Your task to perform on an android device: change your default location settings in chrome Image 0: 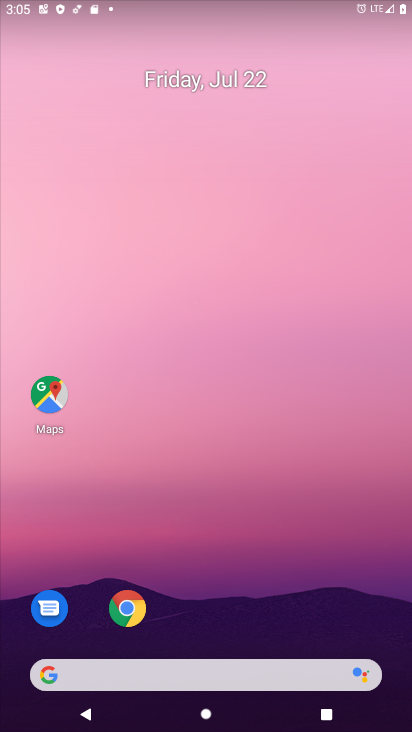
Step 0: click (142, 608)
Your task to perform on an android device: change your default location settings in chrome Image 1: 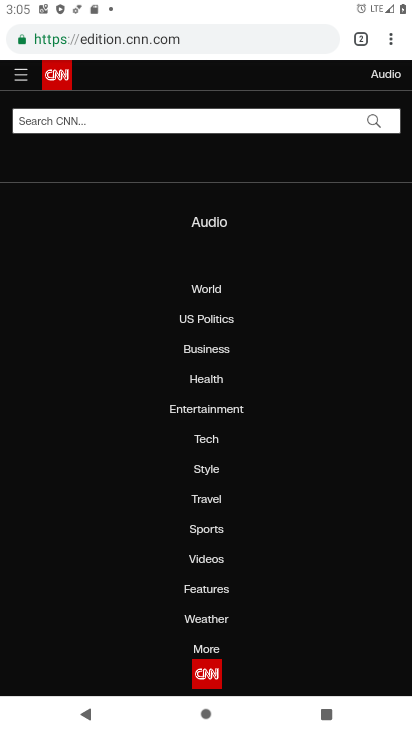
Step 1: click (398, 44)
Your task to perform on an android device: change your default location settings in chrome Image 2: 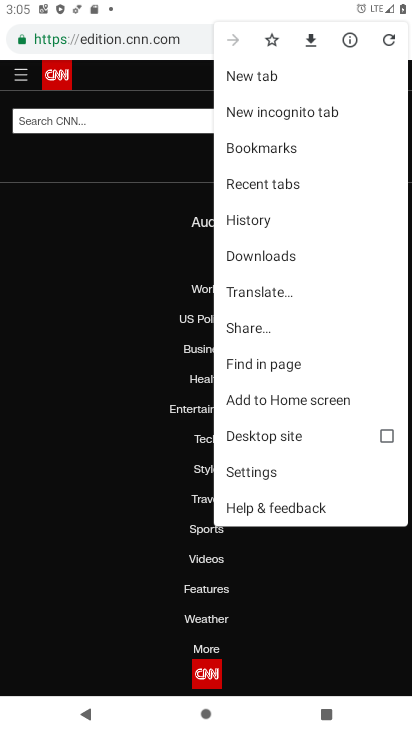
Step 2: click (275, 477)
Your task to perform on an android device: change your default location settings in chrome Image 3: 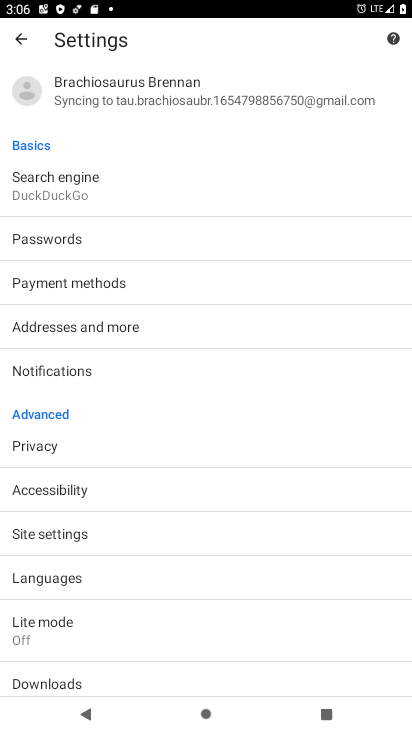
Step 3: click (77, 534)
Your task to perform on an android device: change your default location settings in chrome Image 4: 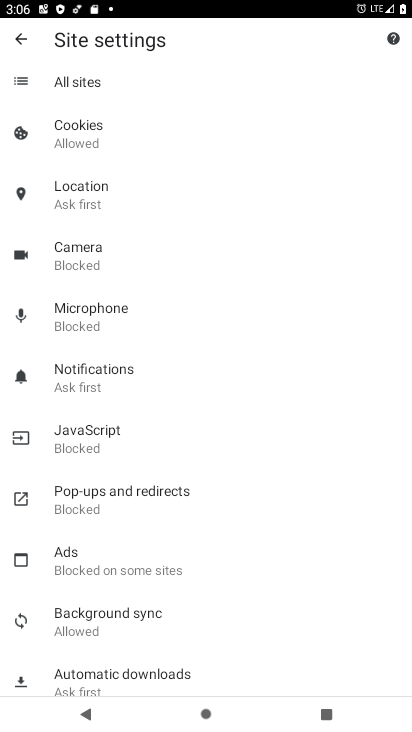
Step 4: click (102, 197)
Your task to perform on an android device: change your default location settings in chrome Image 5: 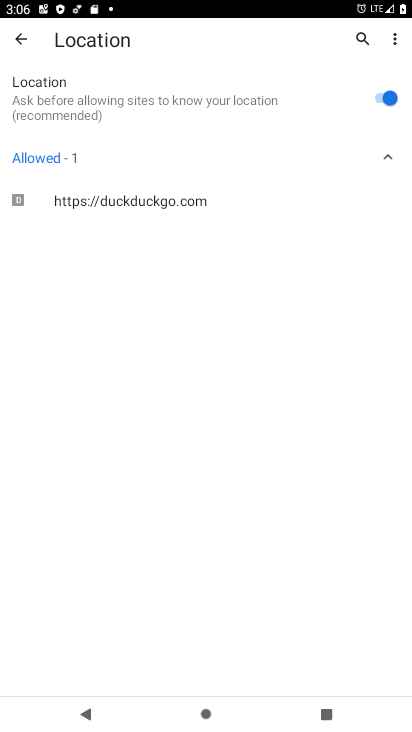
Step 5: click (381, 98)
Your task to perform on an android device: change your default location settings in chrome Image 6: 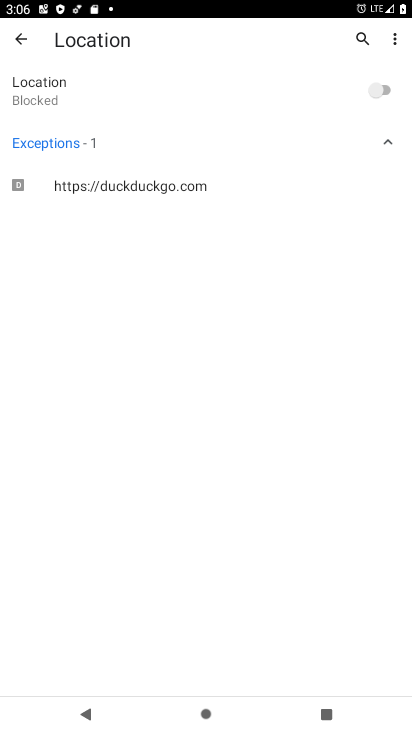
Step 6: task complete